Your task to perform on an android device: add a contact in the contacts app Image 0: 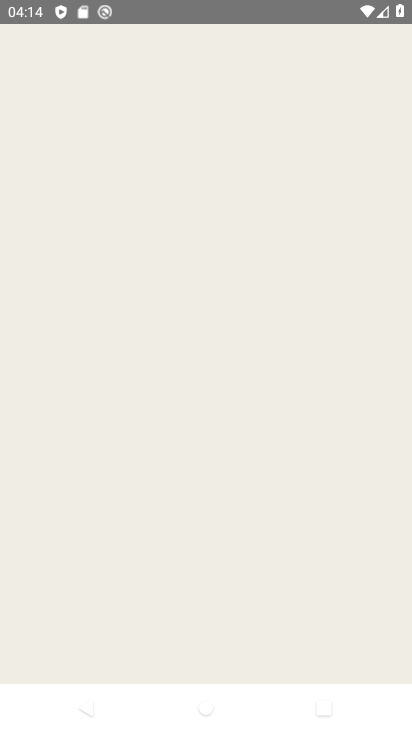
Step 0: drag from (360, 335) to (362, 222)
Your task to perform on an android device: add a contact in the contacts app Image 1: 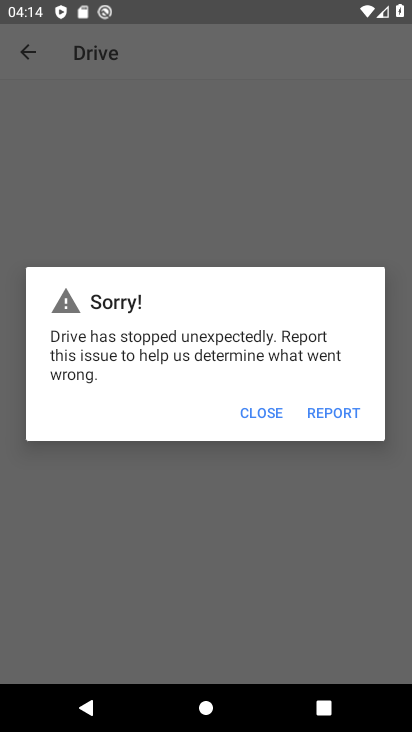
Step 1: press home button
Your task to perform on an android device: add a contact in the contacts app Image 2: 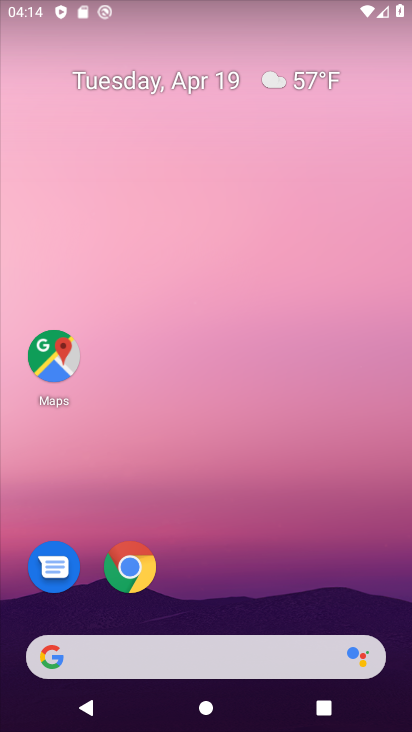
Step 2: drag from (372, 580) to (381, 217)
Your task to perform on an android device: add a contact in the contacts app Image 3: 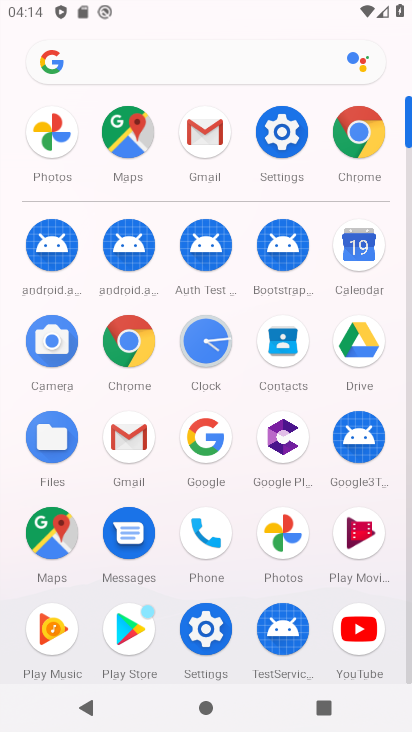
Step 3: click (294, 353)
Your task to perform on an android device: add a contact in the contacts app Image 4: 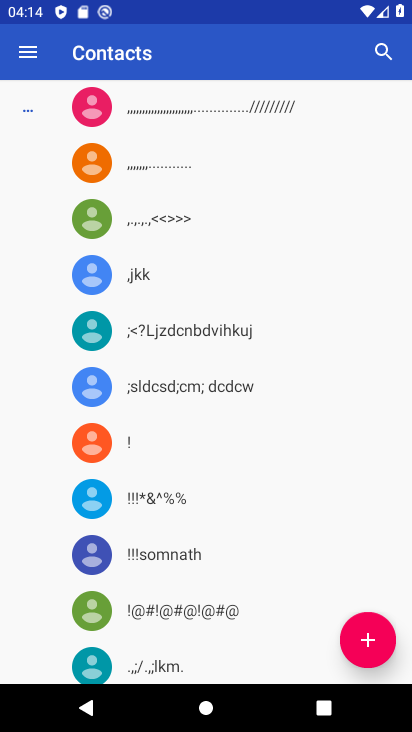
Step 4: click (371, 646)
Your task to perform on an android device: add a contact in the contacts app Image 5: 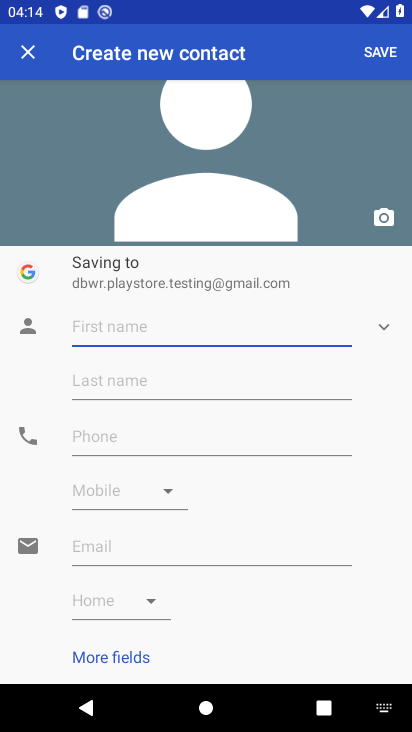
Step 5: type "lol"
Your task to perform on an android device: add a contact in the contacts app Image 6: 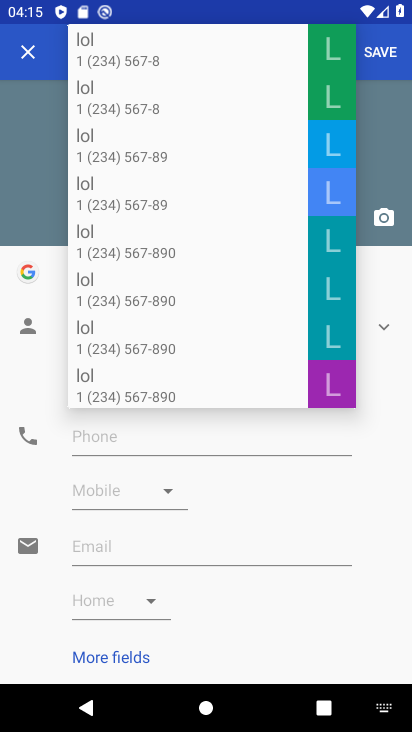
Step 6: click (250, 439)
Your task to perform on an android device: add a contact in the contacts app Image 7: 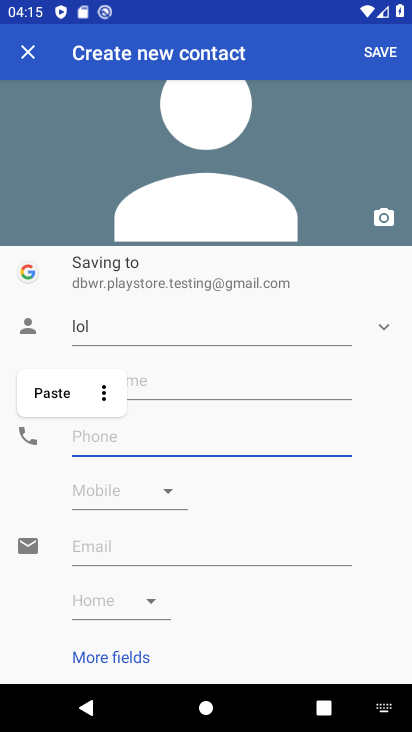
Step 7: type "123"
Your task to perform on an android device: add a contact in the contacts app Image 8: 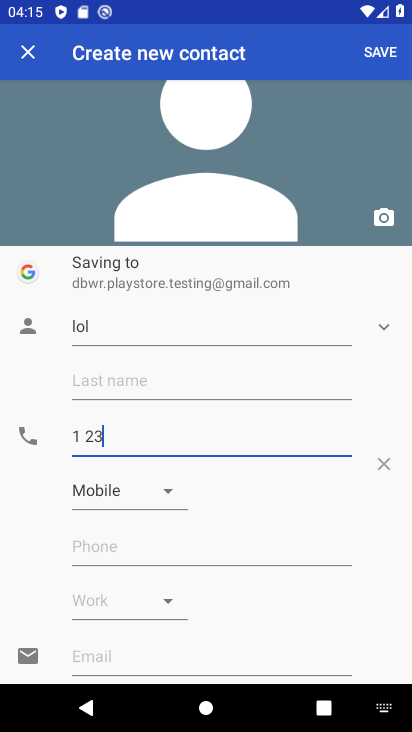
Step 8: click (389, 51)
Your task to perform on an android device: add a contact in the contacts app Image 9: 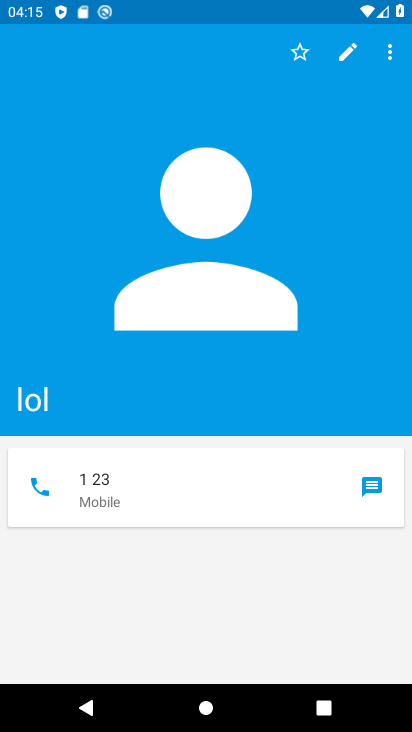
Step 9: task complete